Your task to perform on an android device: Show me popular games on the Play Store Image 0: 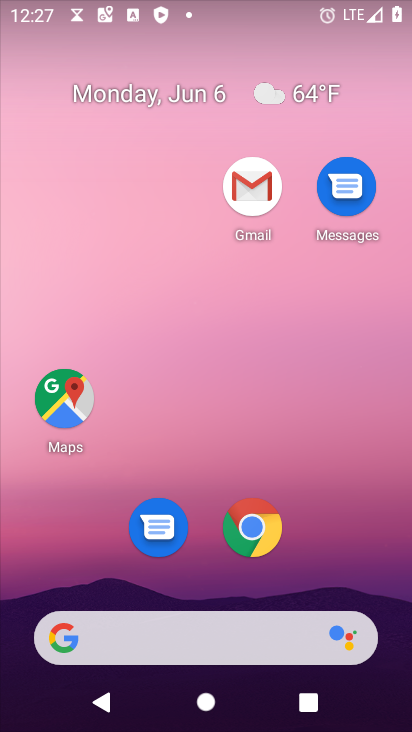
Step 0: drag from (308, 568) to (215, 80)
Your task to perform on an android device: Show me popular games on the Play Store Image 1: 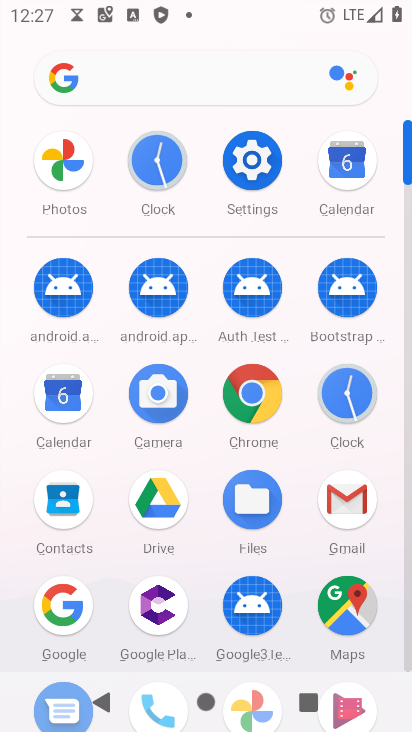
Step 1: drag from (285, 536) to (199, 147)
Your task to perform on an android device: Show me popular games on the Play Store Image 2: 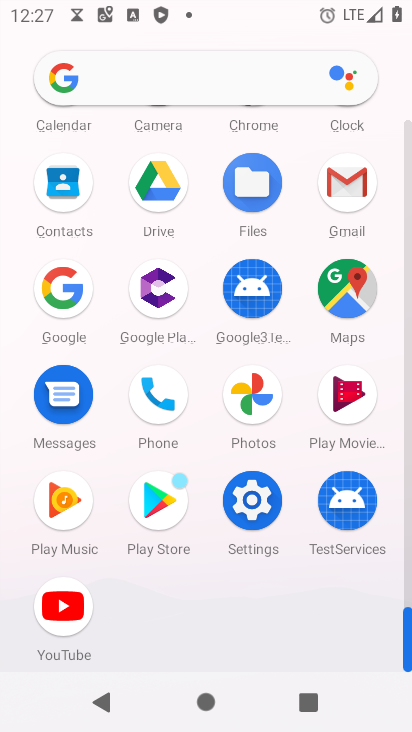
Step 2: click (157, 486)
Your task to perform on an android device: Show me popular games on the Play Store Image 3: 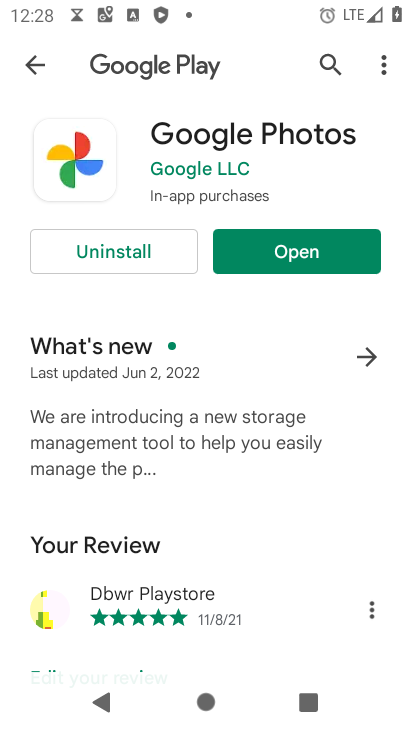
Step 3: click (29, 55)
Your task to perform on an android device: Show me popular games on the Play Store Image 4: 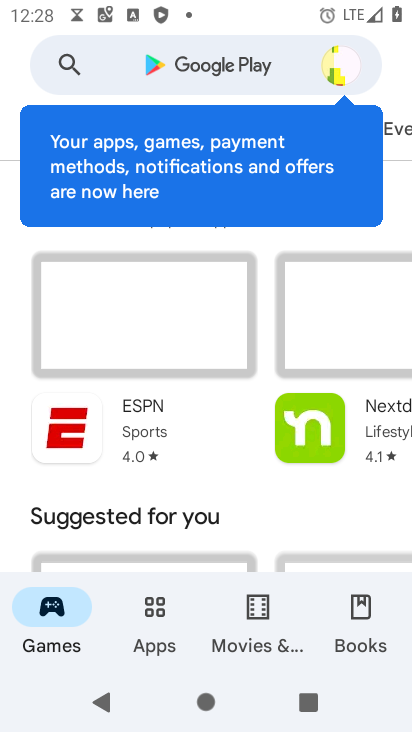
Step 4: click (77, 58)
Your task to perform on an android device: Show me popular games on the Play Store Image 5: 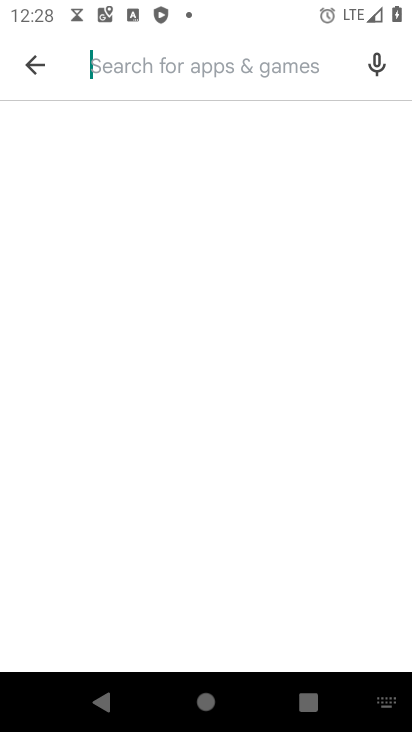
Step 5: type "popular games"
Your task to perform on an android device: Show me popular games on the Play Store Image 6: 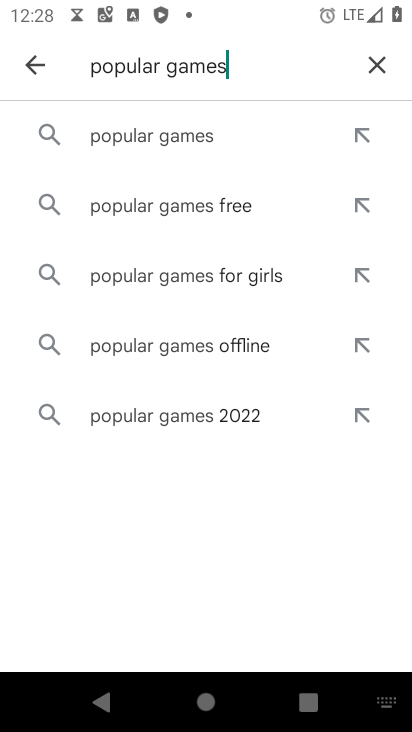
Step 6: click (206, 135)
Your task to perform on an android device: Show me popular games on the Play Store Image 7: 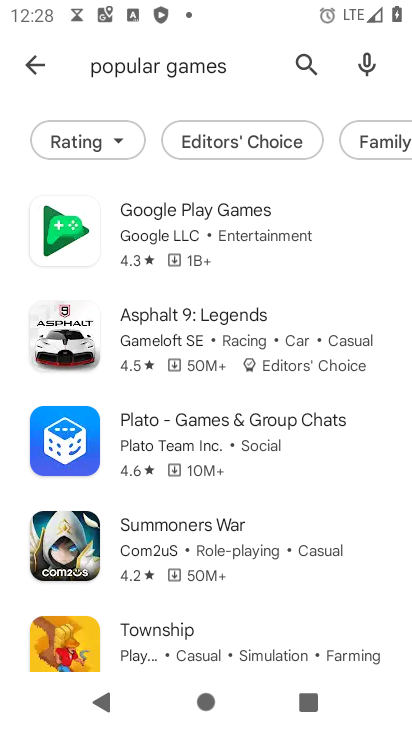
Step 7: task complete